Your task to perform on an android device: clear history in the chrome app Image 0: 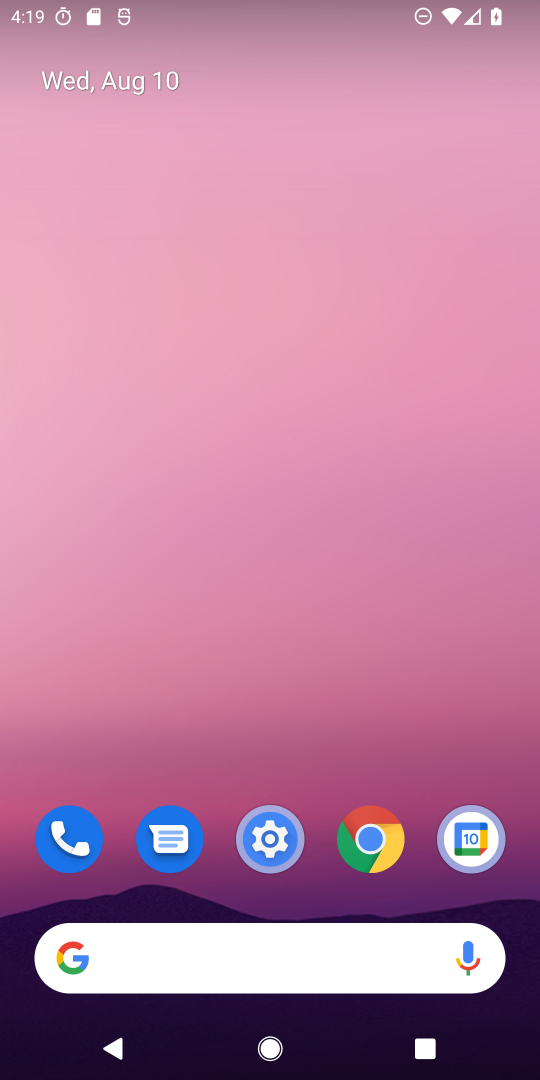
Step 0: click (376, 827)
Your task to perform on an android device: clear history in the chrome app Image 1: 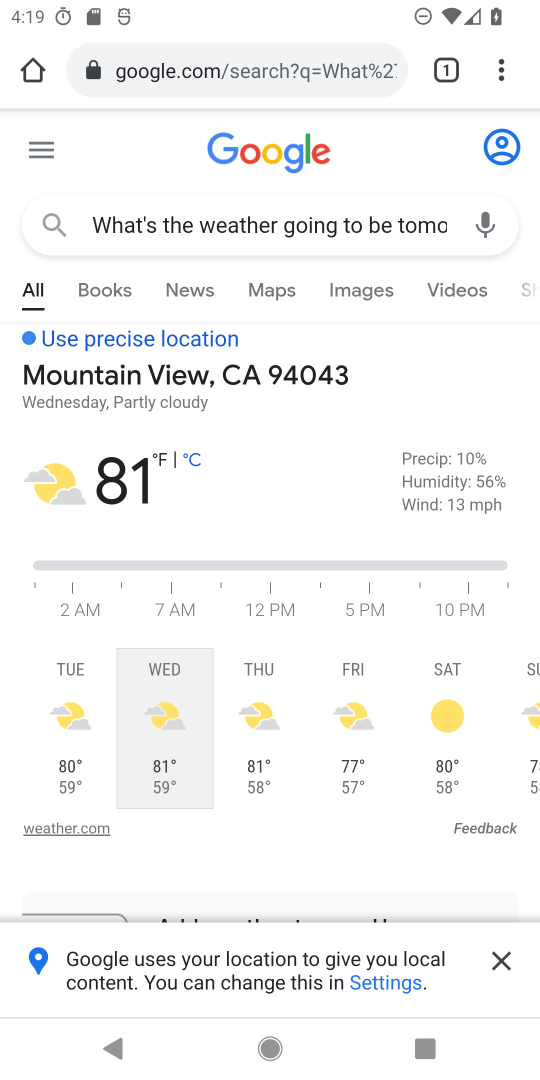
Step 1: click (499, 63)
Your task to perform on an android device: clear history in the chrome app Image 2: 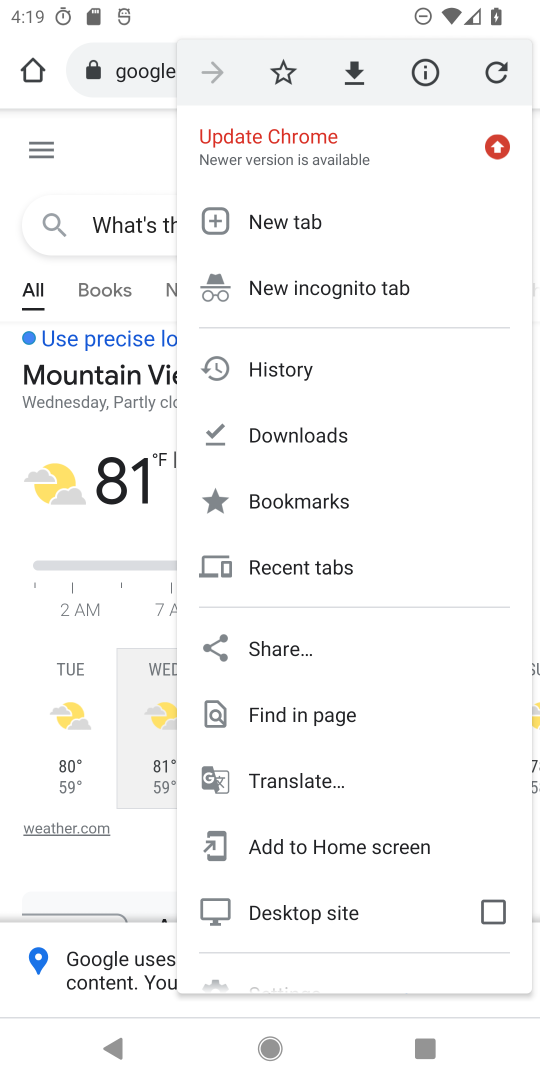
Step 2: click (288, 375)
Your task to perform on an android device: clear history in the chrome app Image 3: 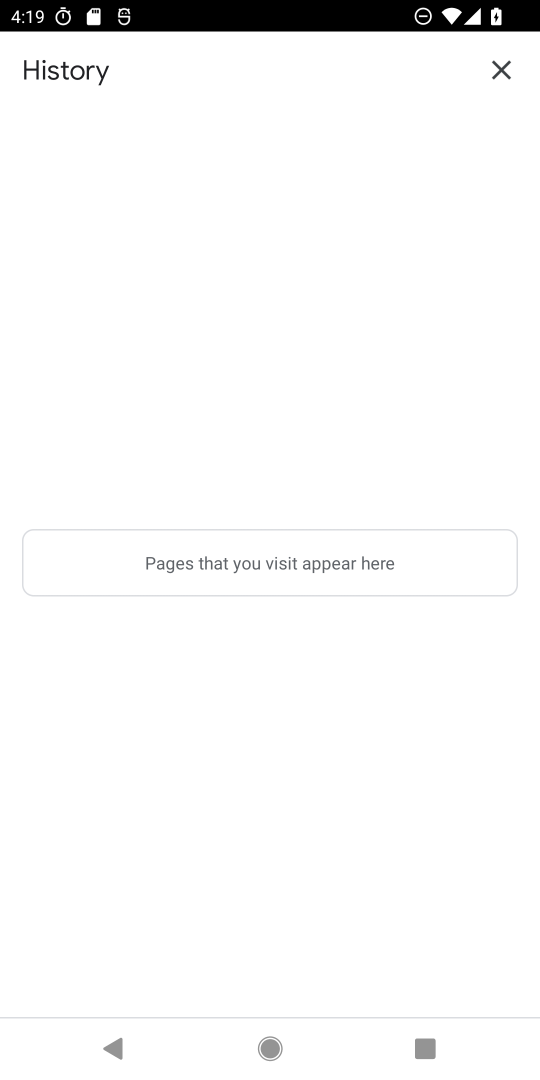
Step 3: task complete